Your task to perform on an android device: Open the calendar app, open the side menu, and click the "Day" option Image 0: 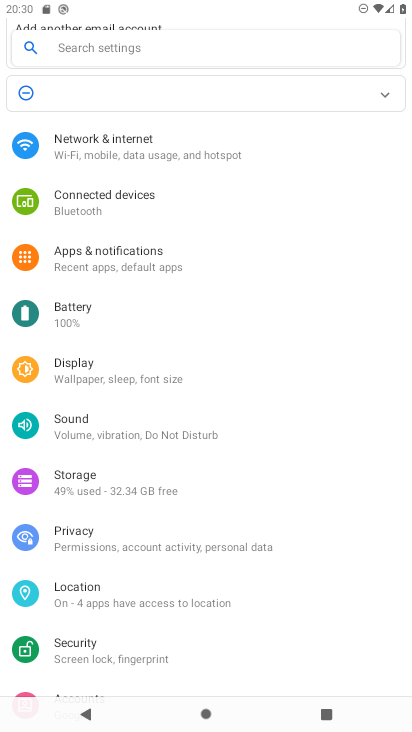
Step 0: press home button
Your task to perform on an android device: Open the calendar app, open the side menu, and click the "Day" option Image 1: 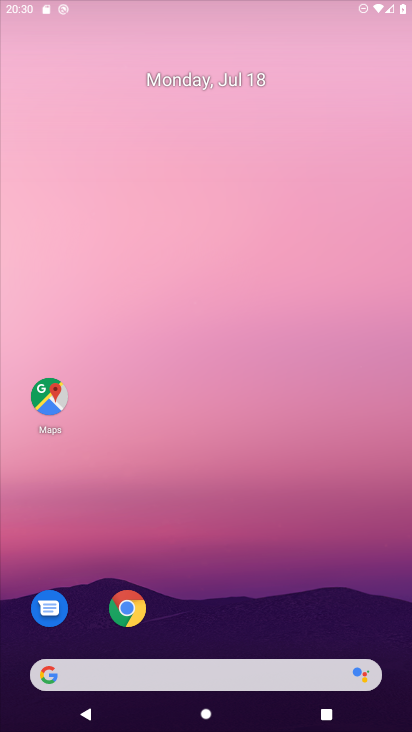
Step 1: drag from (230, 624) to (263, 76)
Your task to perform on an android device: Open the calendar app, open the side menu, and click the "Day" option Image 2: 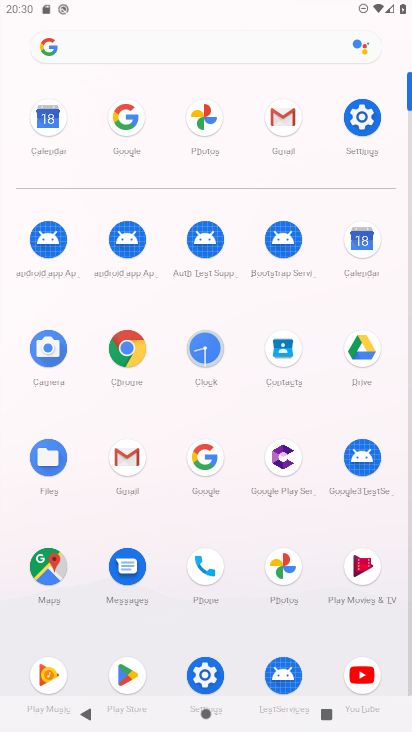
Step 2: click (363, 236)
Your task to perform on an android device: Open the calendar app, open the side menu, and click the "Day" option Image 3: 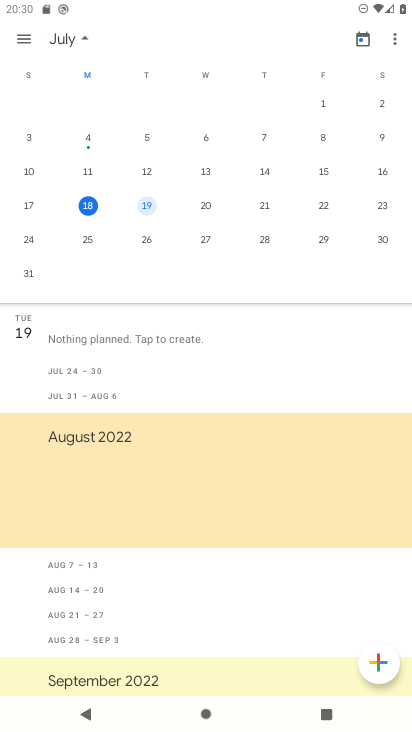
Step 3: click (25, 39)
Your task to perform on an android device: Open the calendar app, open the side menu, and click the "Day" option Image 4: 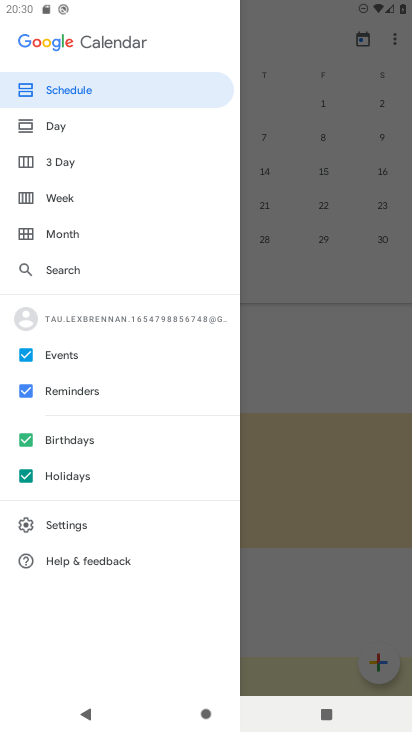
Step 4: click (280, 29)
Your task to perform on an android device: Open the calendar app, open the side menu, and click the "Day" option Image 5: 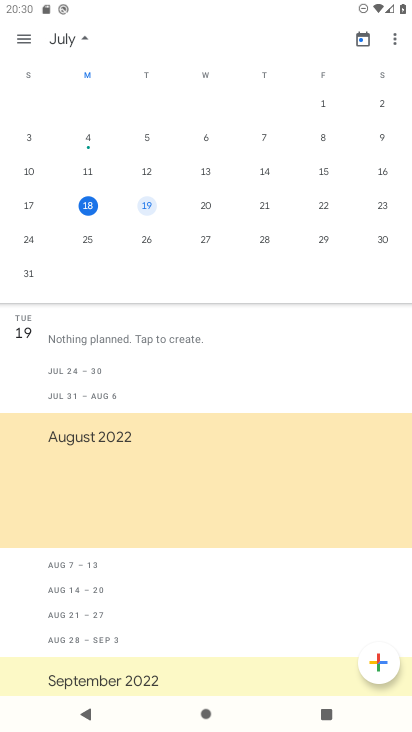
Step 5: click (87, 209)
Your task to perform on an android device: Open the calendar app, open the side menu, and click the "Day" option Image 6: 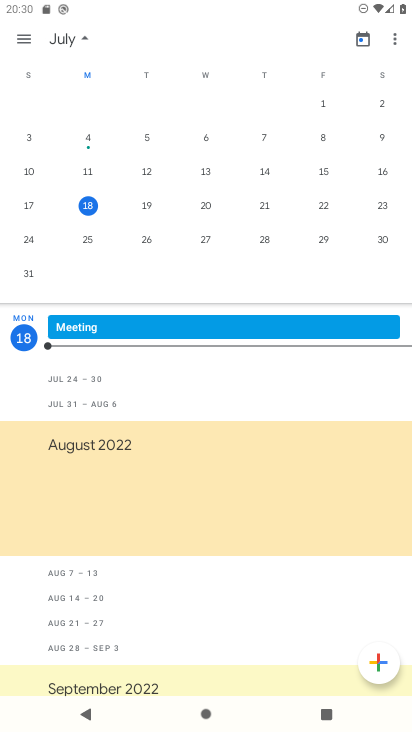
Step 6: click (25, 42)
Your task to perform on an android device: Open the calendar app, open the side menu, and click the "Day" option Image 7: 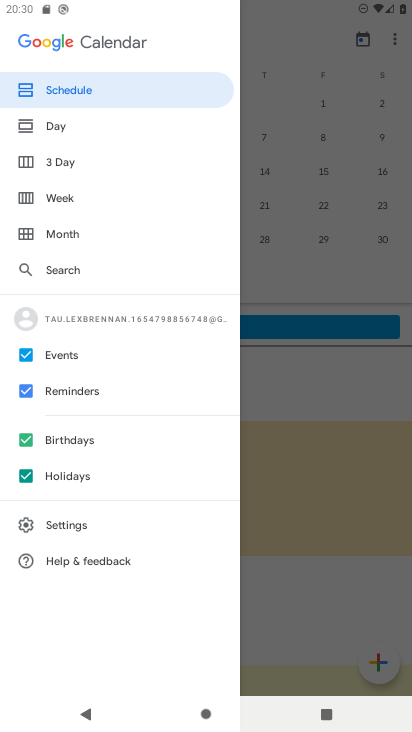
Step 7: click (66, 125)
Your task to perform on an android device: Open the calendar app, open the side menu, and click the "Day" option Image 8: 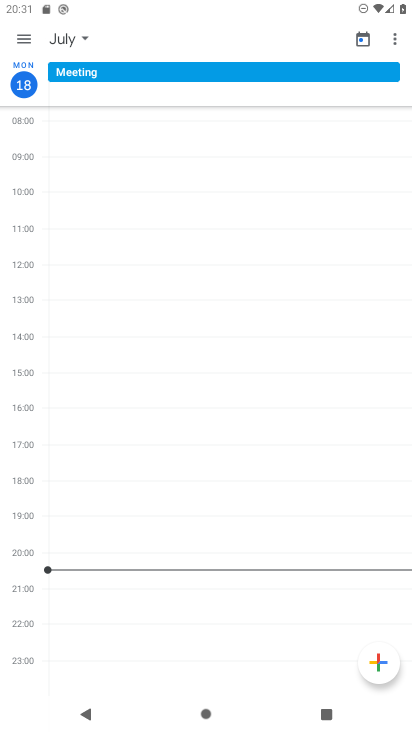
Step 8: task complete